Your task to perform on an android device: What's the weather like inToronto? Image 0: 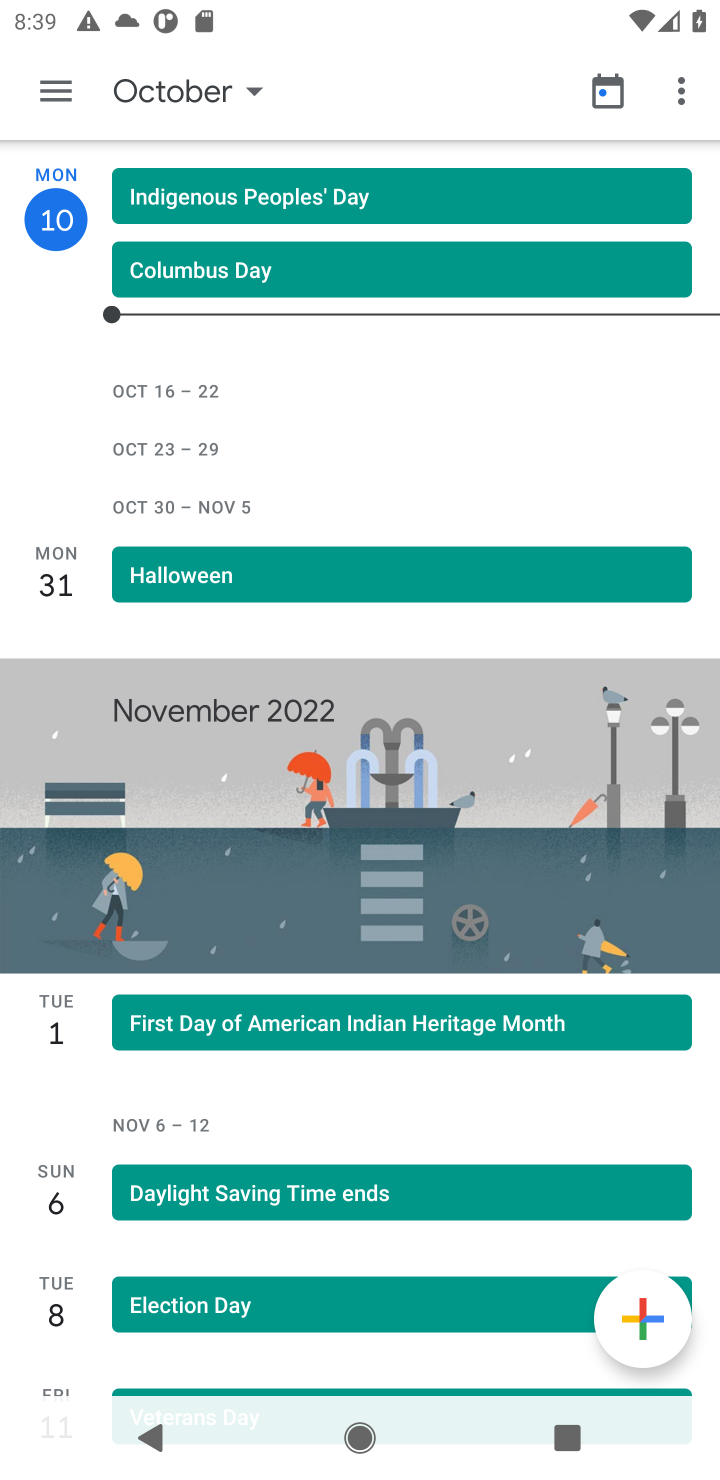
Step 0: press home button
Your task to perform on an android device: What's the weather like inToronto? Image 1: 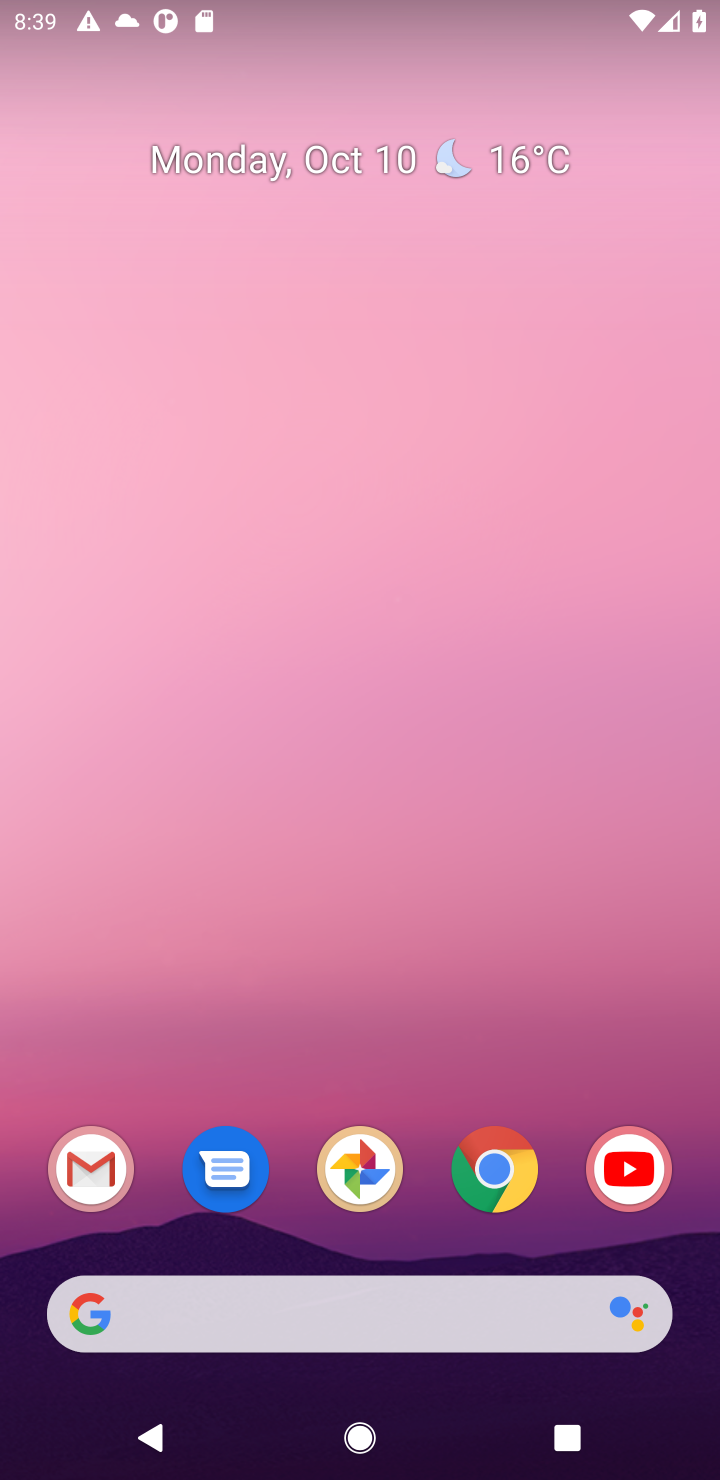
Step 1: click (498, 1165)
Your task to perform on an android device: What's the weather like inToronto? Image 2: 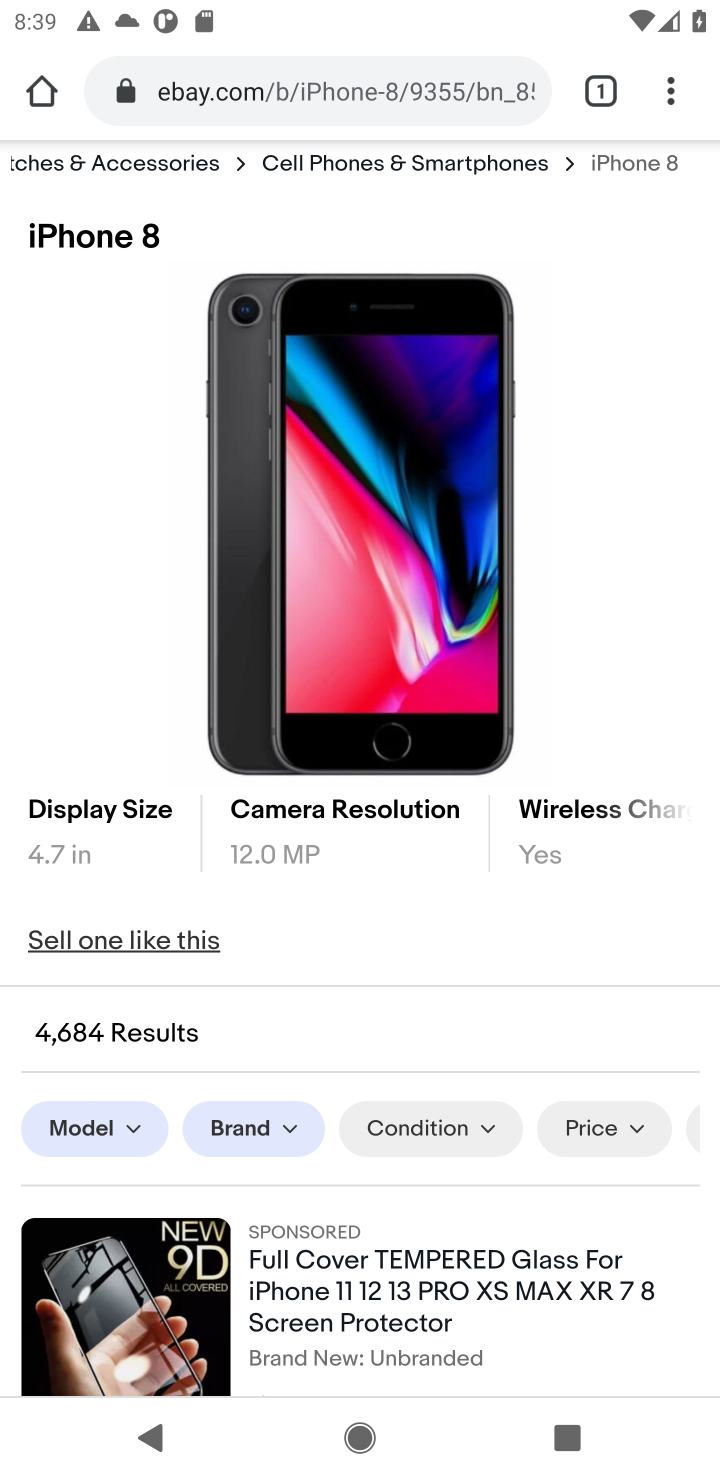
Step 2: drag from (439, 1040) to (339, 503)
Your task to perform on an android device: What's the weather like inToronto? Image 3: 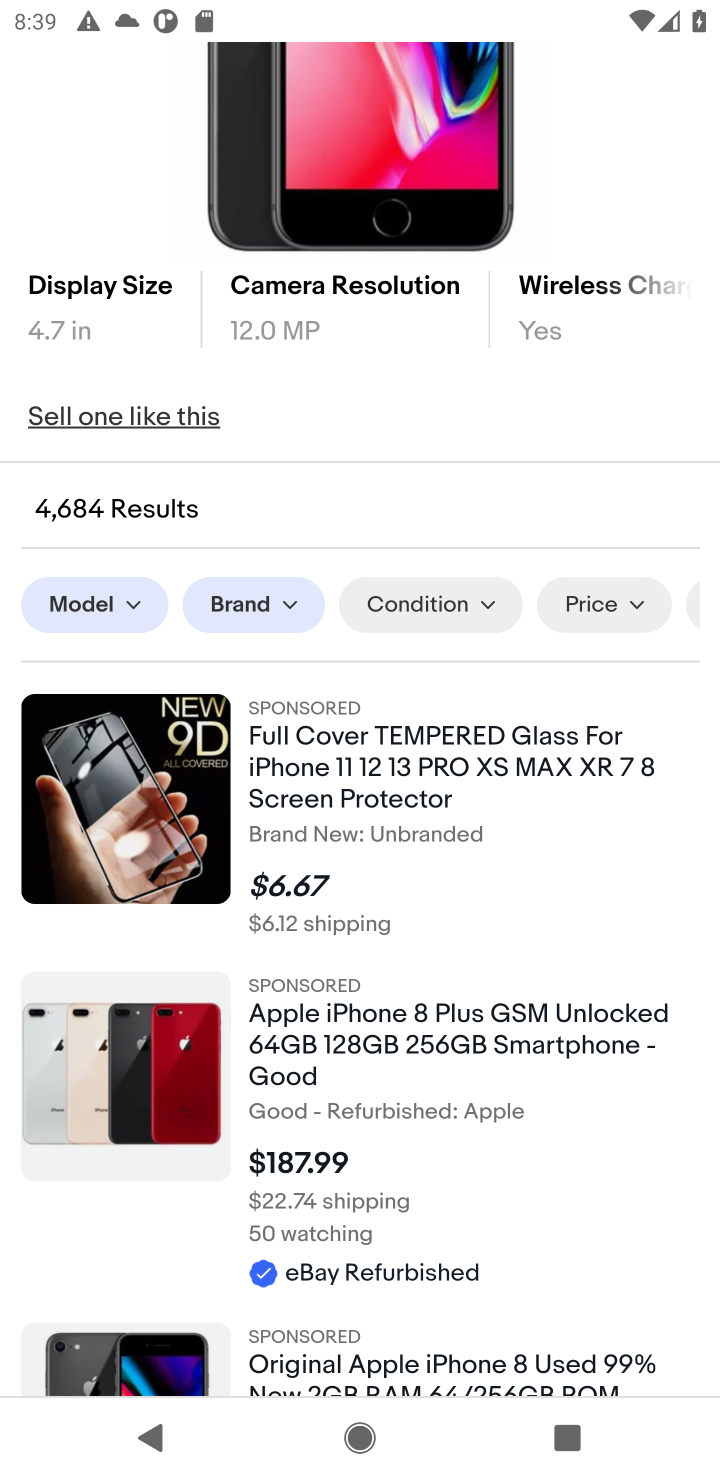
Step 3: drag from (581, 1266) to (504, 701)
Your task to perform on an android device: What's the weather like inToronto? Image 4: 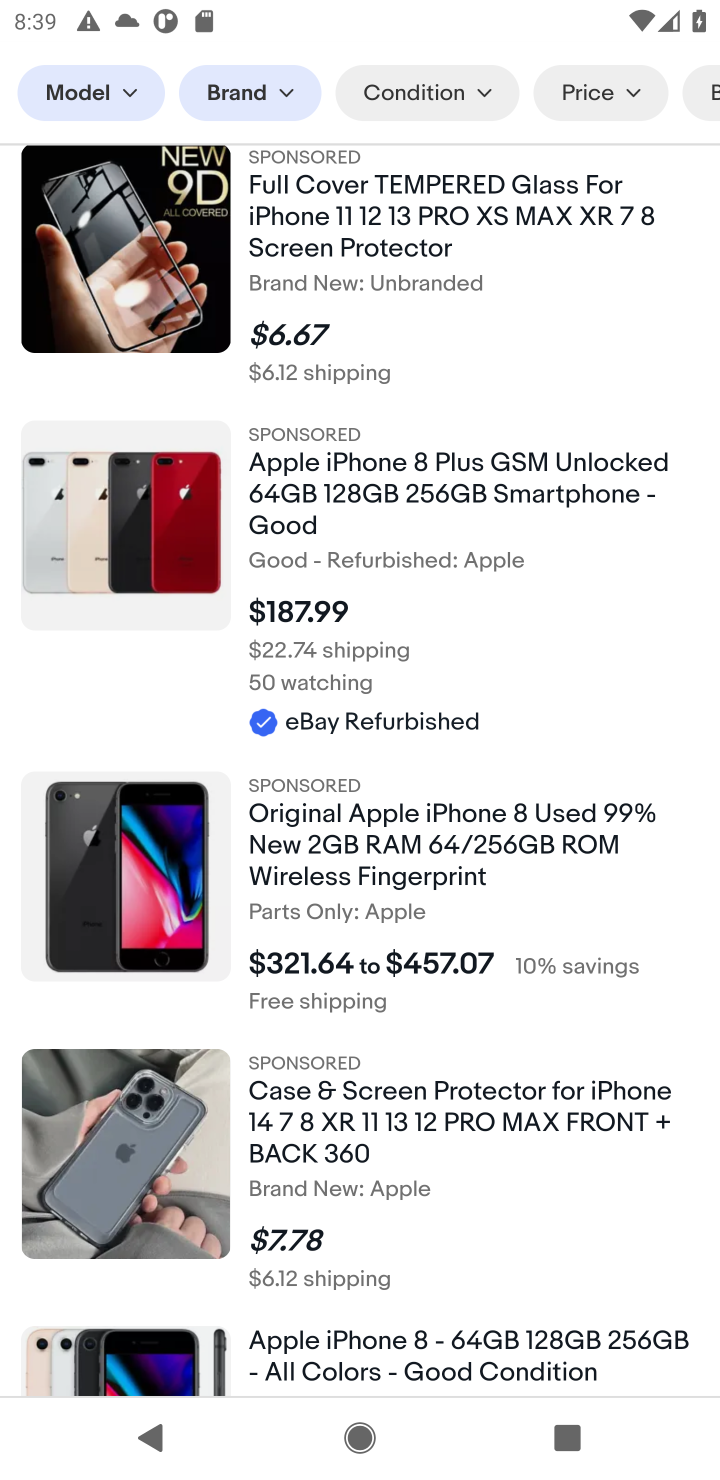
Step 4: drag from (504, 701) to (515, 1270)
Your task to perform on an android device: What's the weather like inToronto? Image 5: 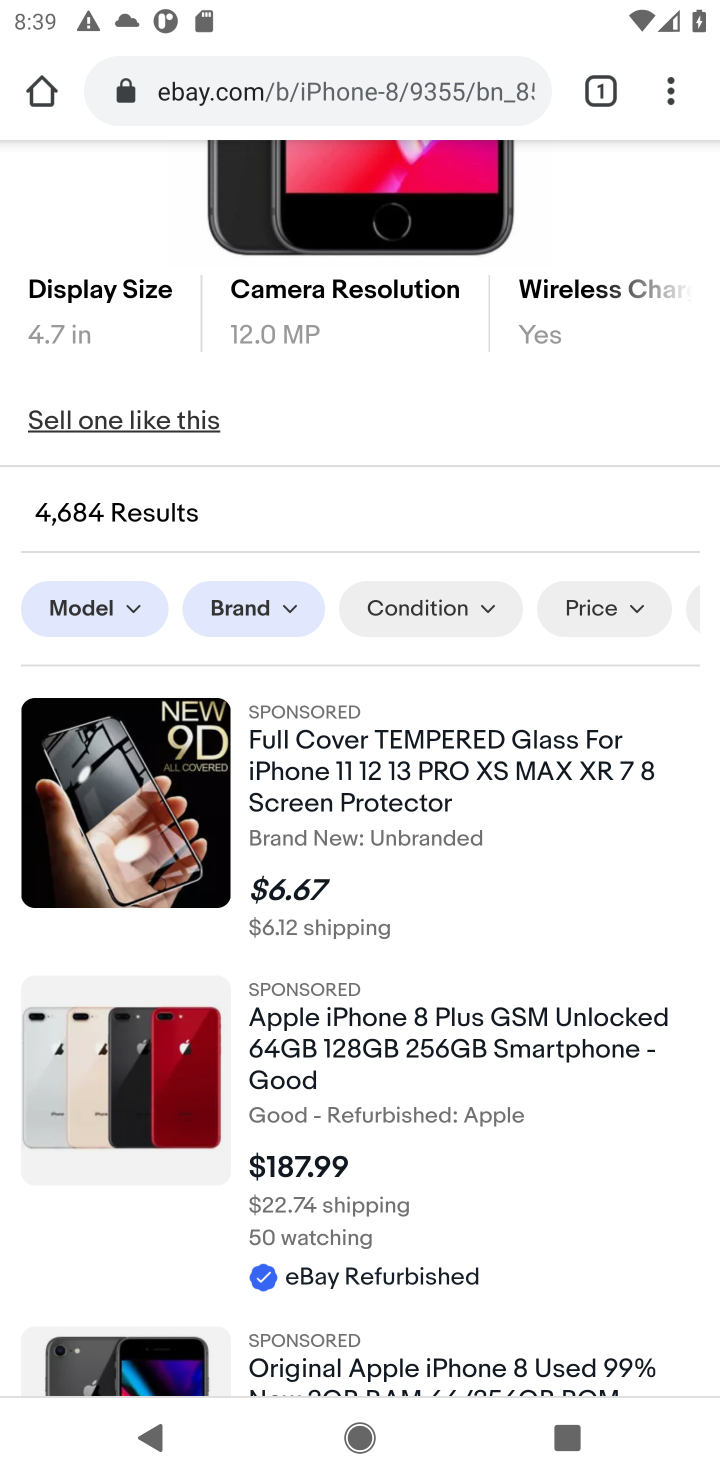
Step 5: click (390, 98)
Your task to perform on an android device: What's the weather like inToronto? Image 6: 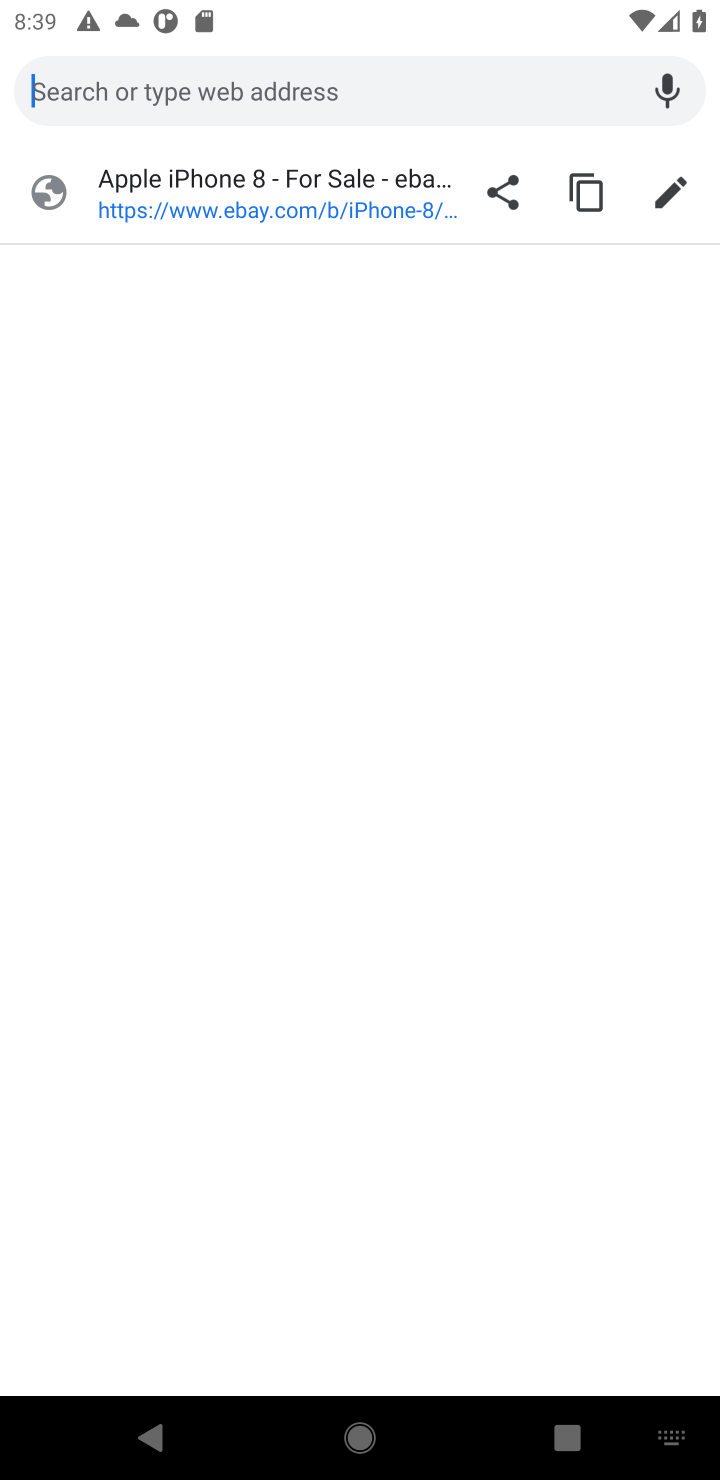
Step 6: type "weather like inToronto"
Your task to perform on an android device: What's the weather like inToronto? Image 7: 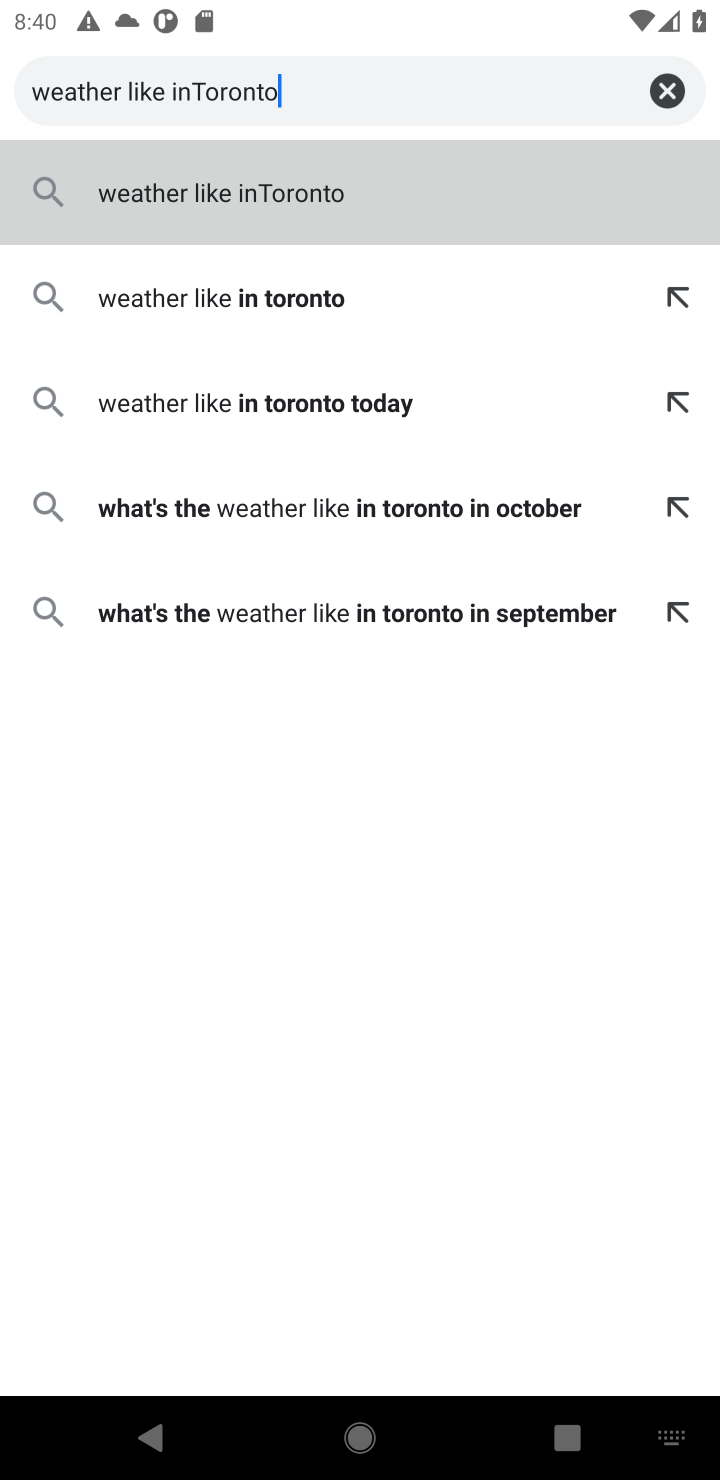
Step 7: type ""
Your task to perform on an android device: What's the weather like inToronto? Image 8: 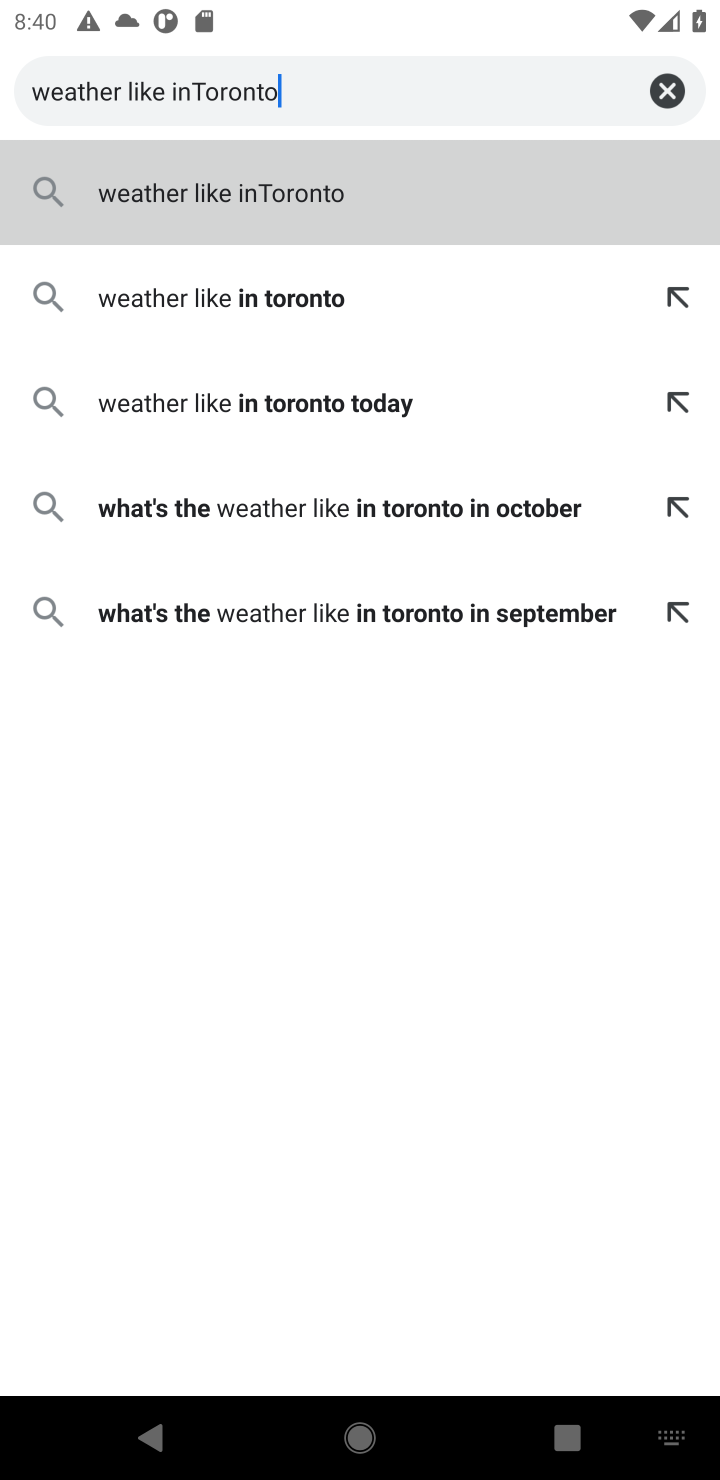
Step 8: press enter
Your task to perform on an android device: What's the weather like inToronto? Image 9: 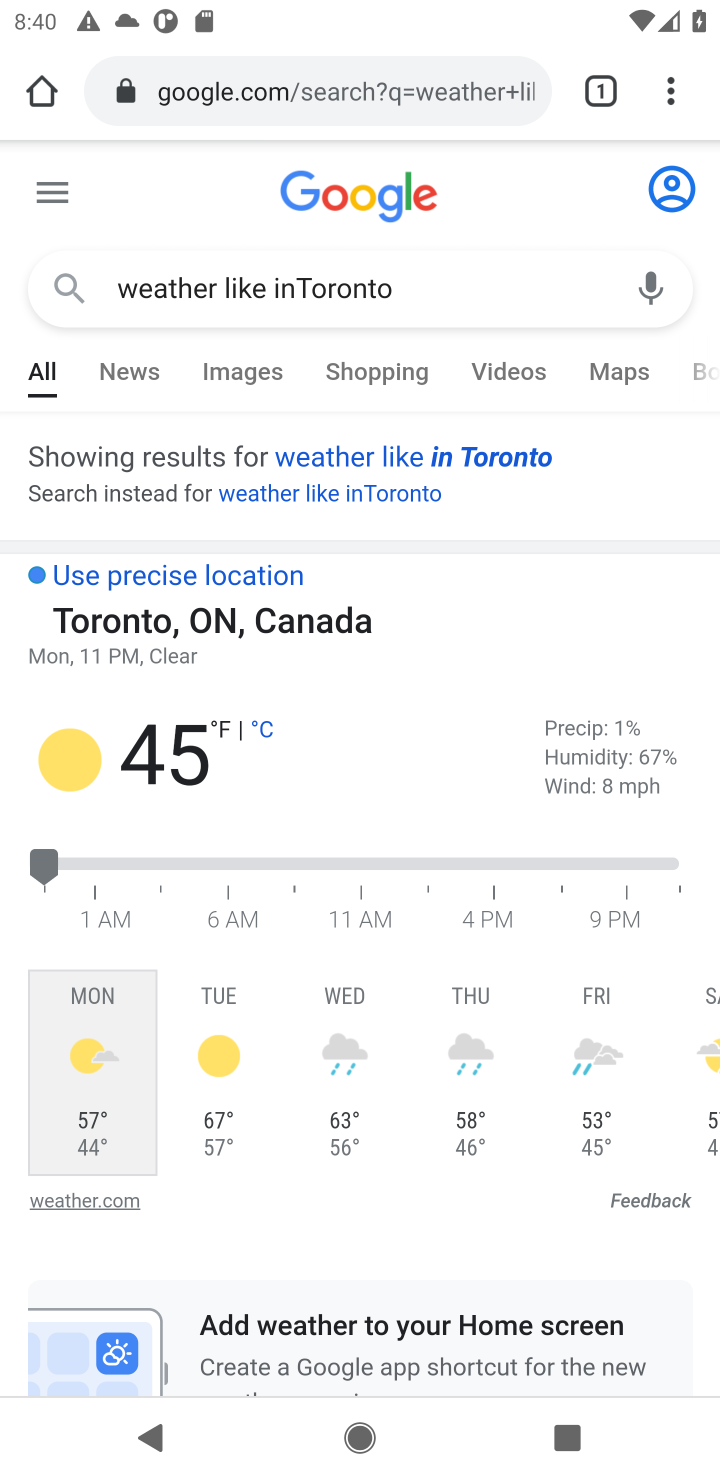
Step 9: task complete